Your task to perform on an android device: Open sound settings Image 0: 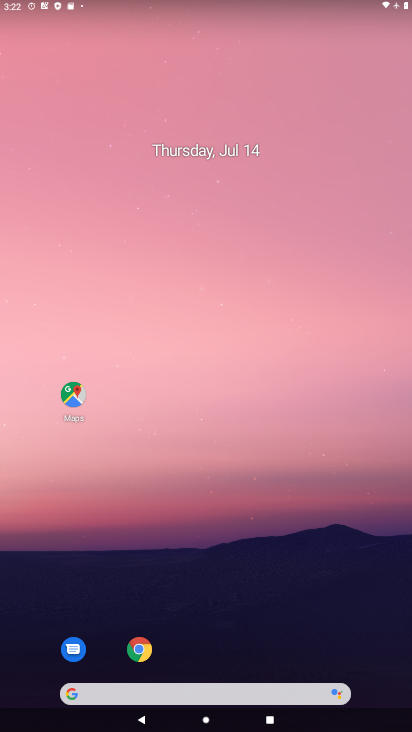
Step 0: drag from (233, 597) to (250, 156)
Your task to perform on an android device: Open sound settings Image 1: 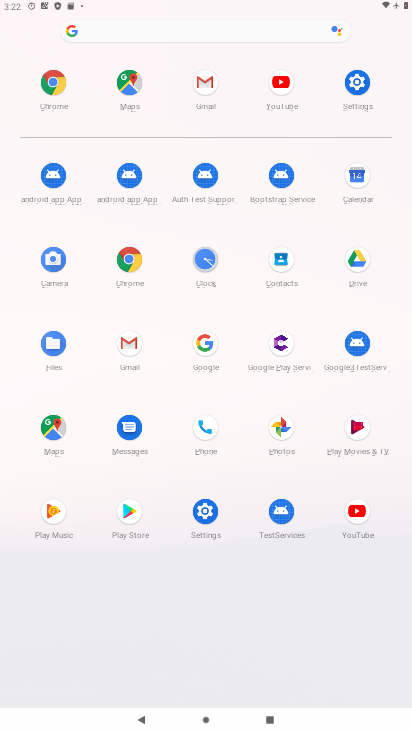
Step 1: click (203, 522)
Your task to perform on an android device: Open sound settings Image 2: 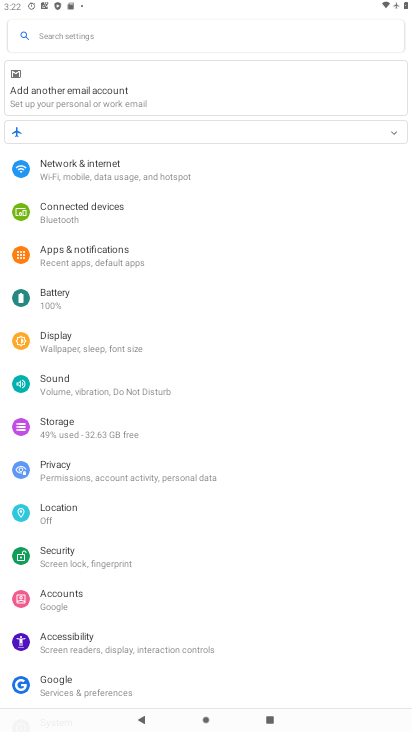
Step 2: click (84, 384)
Your task to perform on an android device: Open sound settings Image 3: 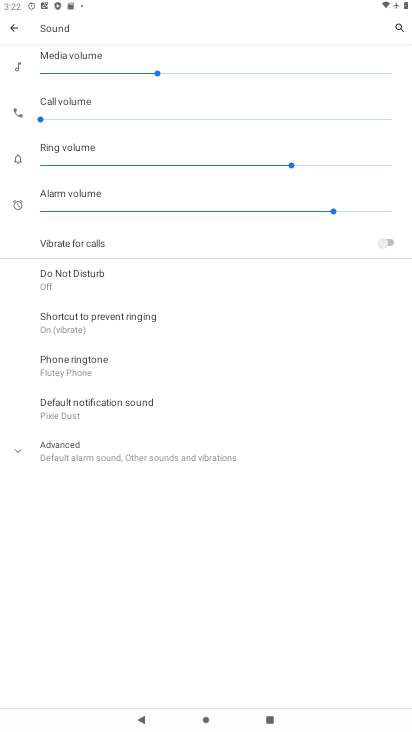
Step 3: task complete